Your task to perform on an android device: Open the calendar and show me this week's events Image 0: 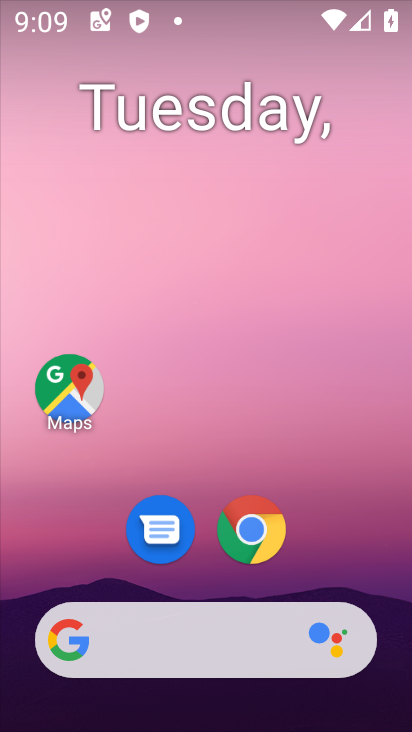
Step 0: drag from (222, 697) to (253, 130)
Your task to perform on an android device: Open the calendar and show me this week's events Image 1: 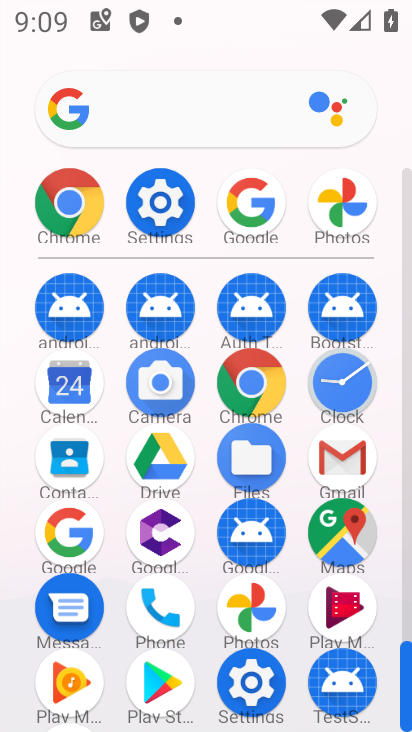
Step 1: click (69, 388)
Your task to perform on an android device: Open the calendar and show me this week's events Image 2: 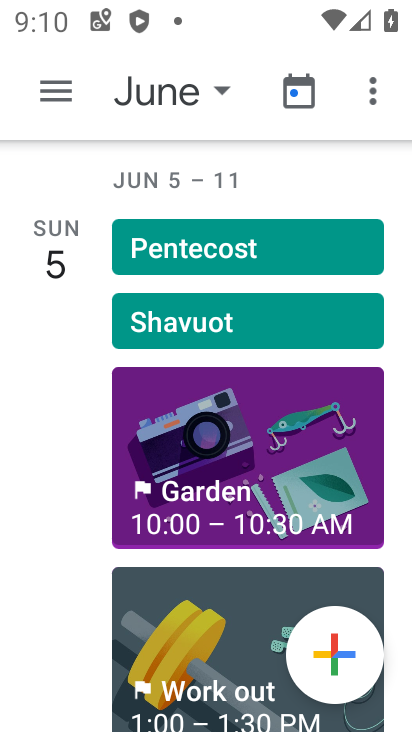
Step 2: click (166, 93)
Your task to perform on an android device: Open the calendar and show me this week's events Image 3: 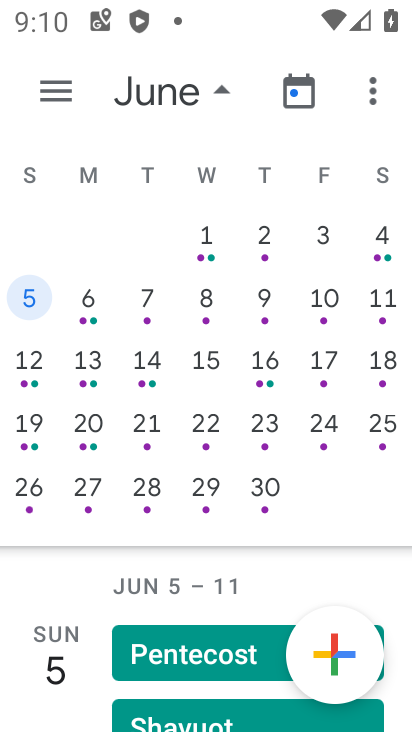
Step 3: drag from (46, 423) to (406, 552)
Your task to perform on an android device: Open the calendar and show me this week's events Image 4: 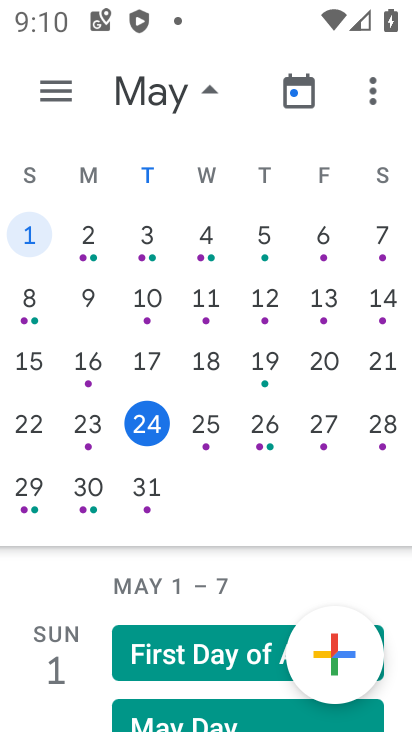
Step 4: click (200, 442)
Your task to perform on an android device: Open the calendar and show me this week's events Image 5: 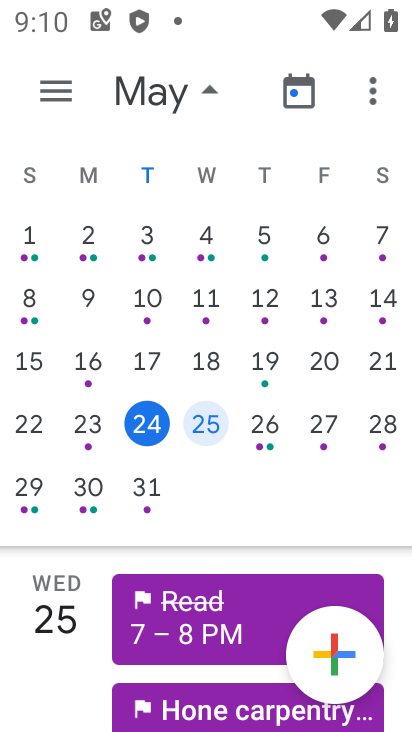
Step 5: task complete